Your task to perform on an android device: Show me the alarms in the clock app Image 0: 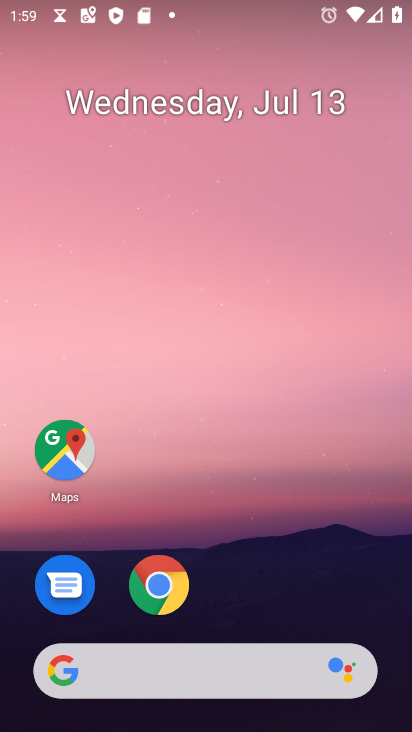
Step 0: drag from (195, 649) to (275, 10)
Your task to perform on an android device: Show me the alarms in the clock app Image 1: 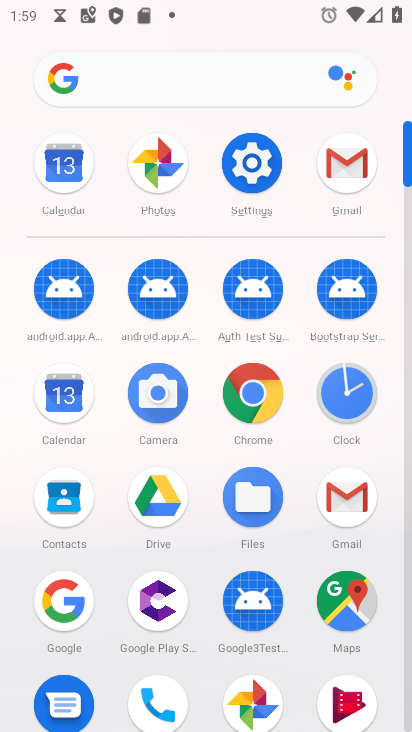
Step 1: click (338, 391)
Your task to perform on an android device: Show me the alarms in the clock app Image 2: 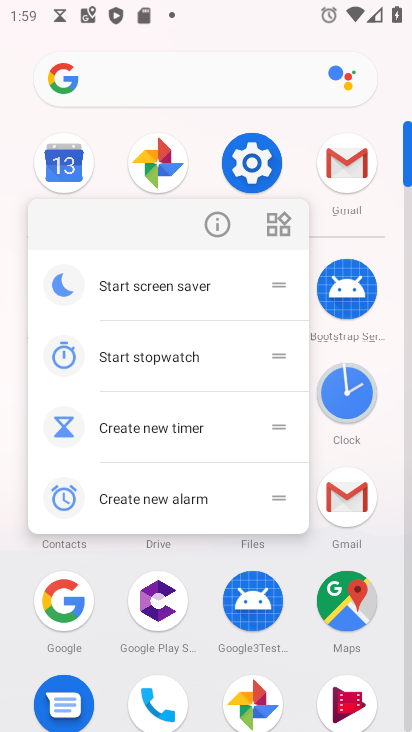
Step 2: click (351, 409)
Your task to perform on an android device: Show me the alarms in the clock app Image 3: 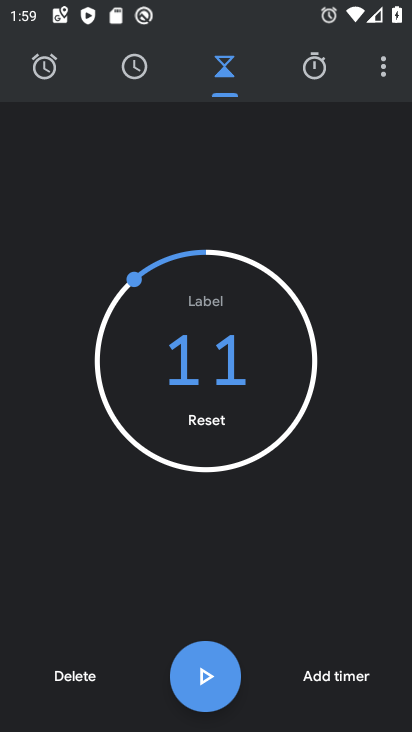
Step 3: click (38, 75)
Your task to perform on an android device: Show me the alarms in the clock app Image 4: 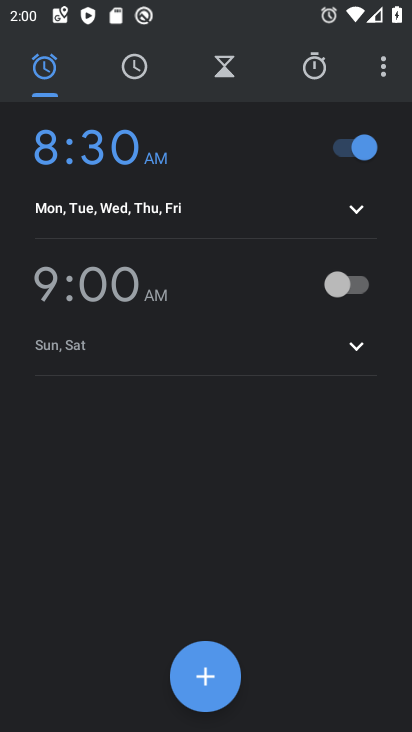
Step 4: task complete